Your task to perform on an android device: Open the phone app and click the voicemail tab. Image 0: 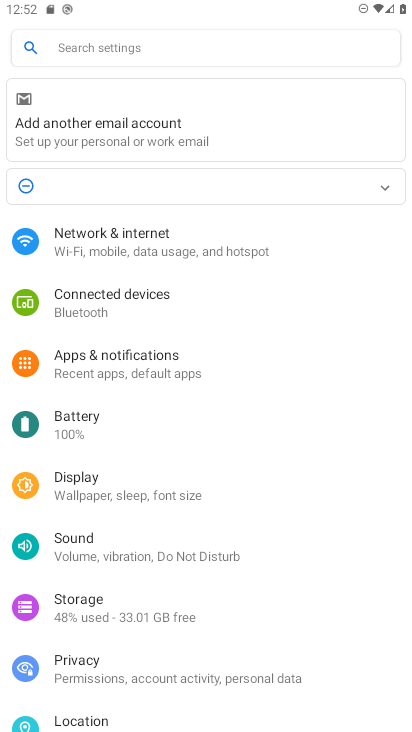
Step 0: press home button
Your task to perform on an android device: Open the phone app and click the voicemail tab. Image 1: 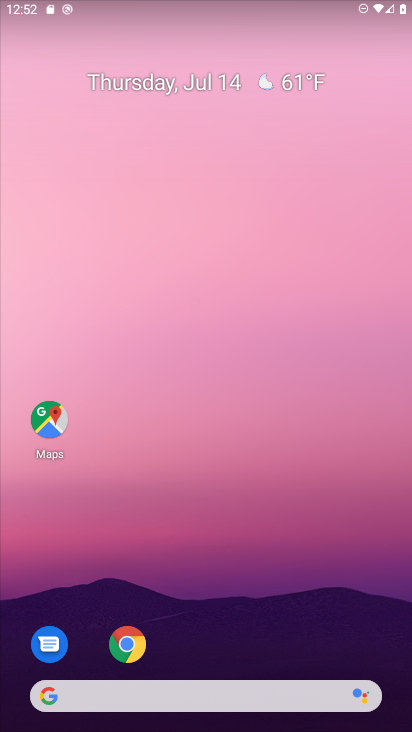
Step 1: drag from (277, 561) to (191, 10)
Your task to perform on an android device: Open the phone app and click the voicemail tab. Image 2: 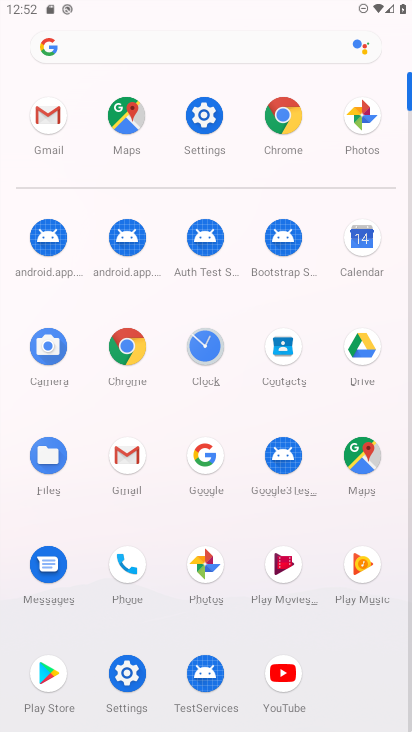
Step 2: click (122, 562)
Your task to perform on an android device: Open the phone app and click the voicemail tab. Image 3: 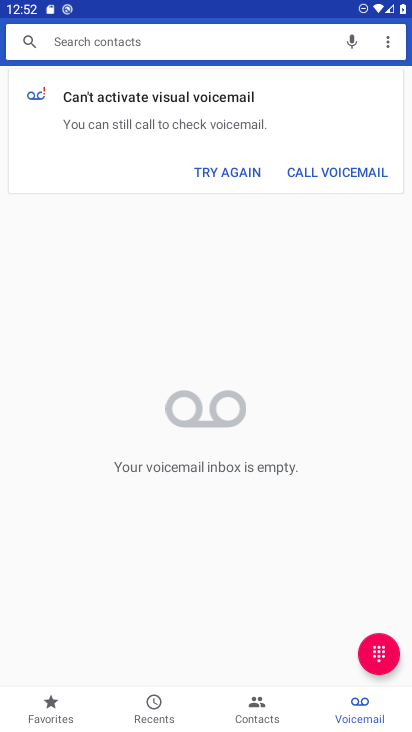
Step 3: click (362, 713)
Your task to perform on an android device: Open the phone app and click the voicemail tab. Image 4: 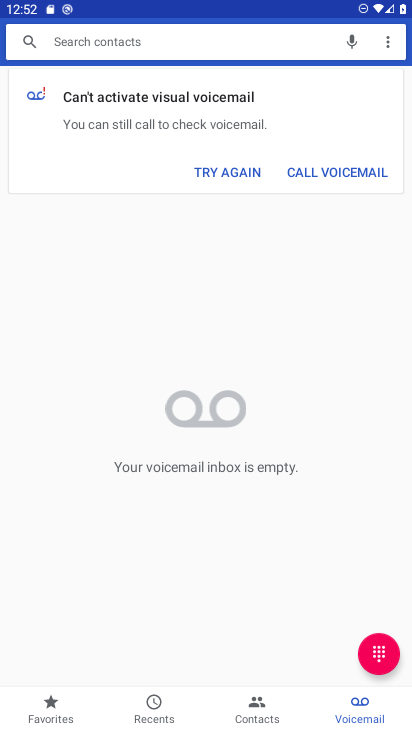
Step 4: task complete